Your task to perform on an android device: delete the emails in spam in the gmail app Image 0: 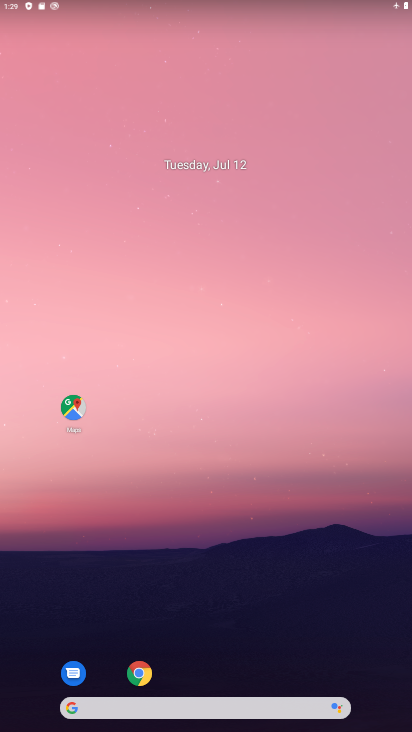
Step 0: drag from (209, 720) to (257, 251)
Your task to perform on an android device: delete the emails in spam in the gmail app Image 1: 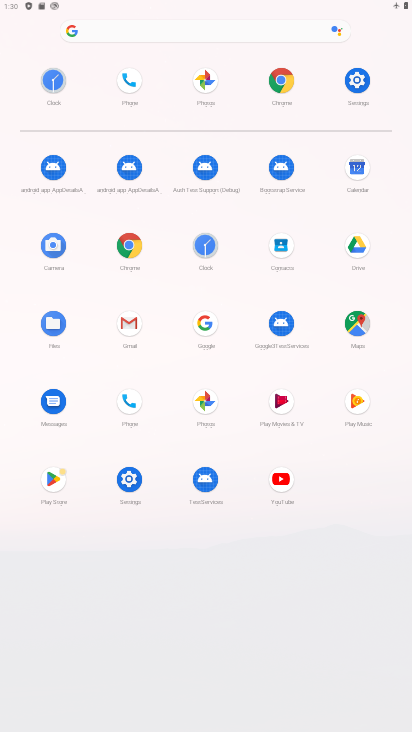
Step 1: click (135, 321)
Your task to perform on an android device: delete the emails in spam in the gmail app Image 2: 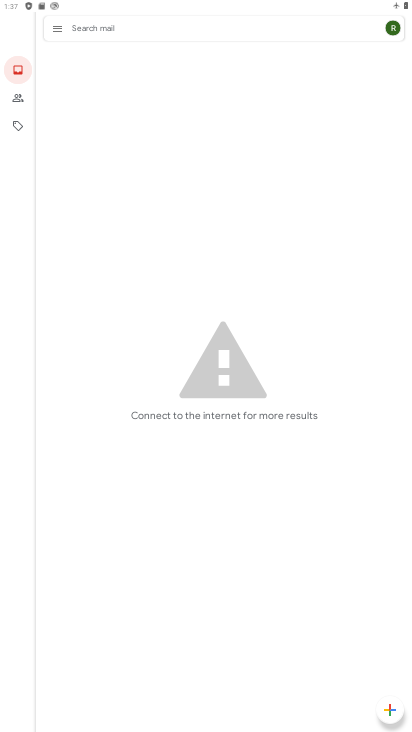
Step 2: click (56, 32)
Your task to perform on an android device: delete the emails in spam in the gmail app Image 3: 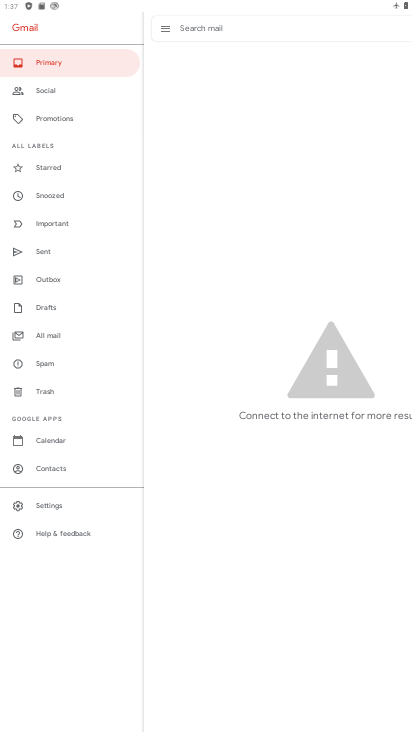
Step 3: click (58, 350)
Your task to perform on an android device: delete the emails in spam in the gmail app Image 4: 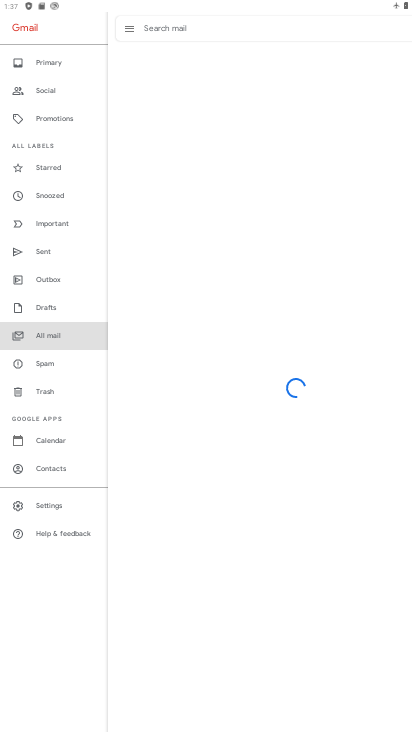
Step 4: click (55, 361)
Your task to perform on an android device: delete the emails in spam in the gmail app Image 5: 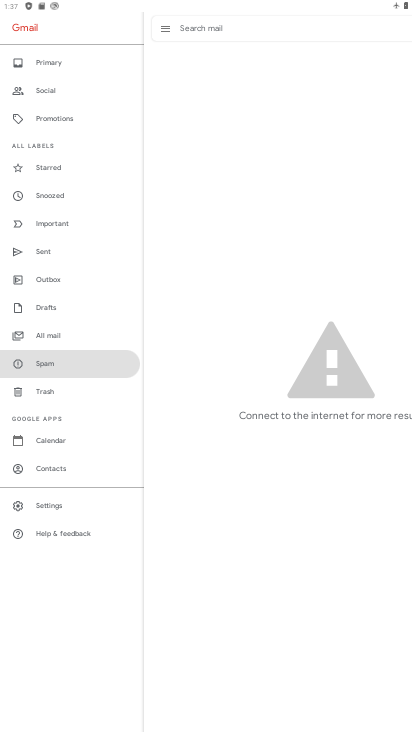
Step 5: task complete